Your task to perform on an android device: toggle wifi Image 0: 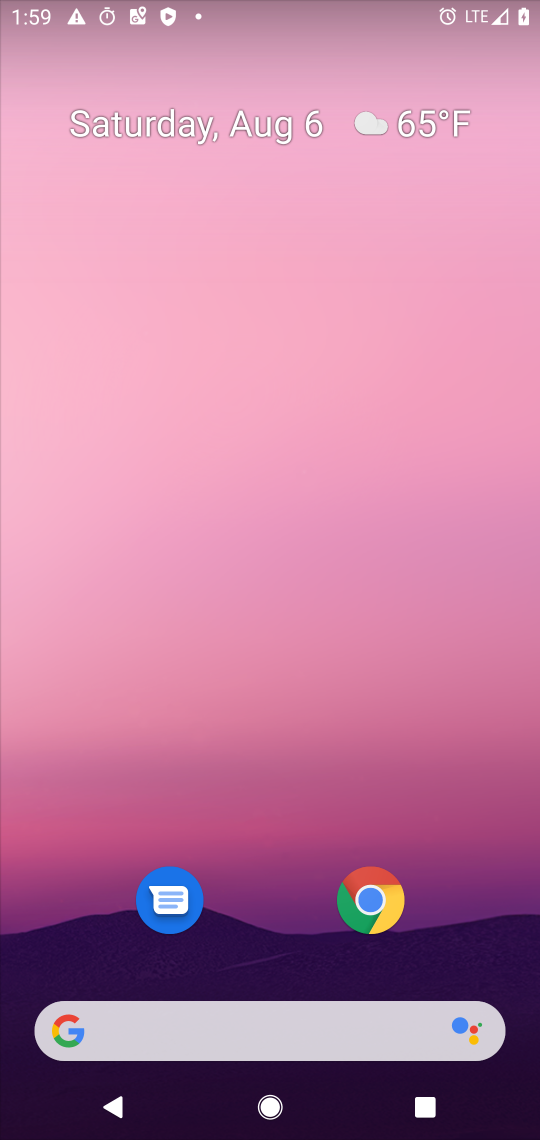
Step 0: drag from (290, 982) to (246, 268)
Your task to perform on an android device: toggle wifi Image 1: 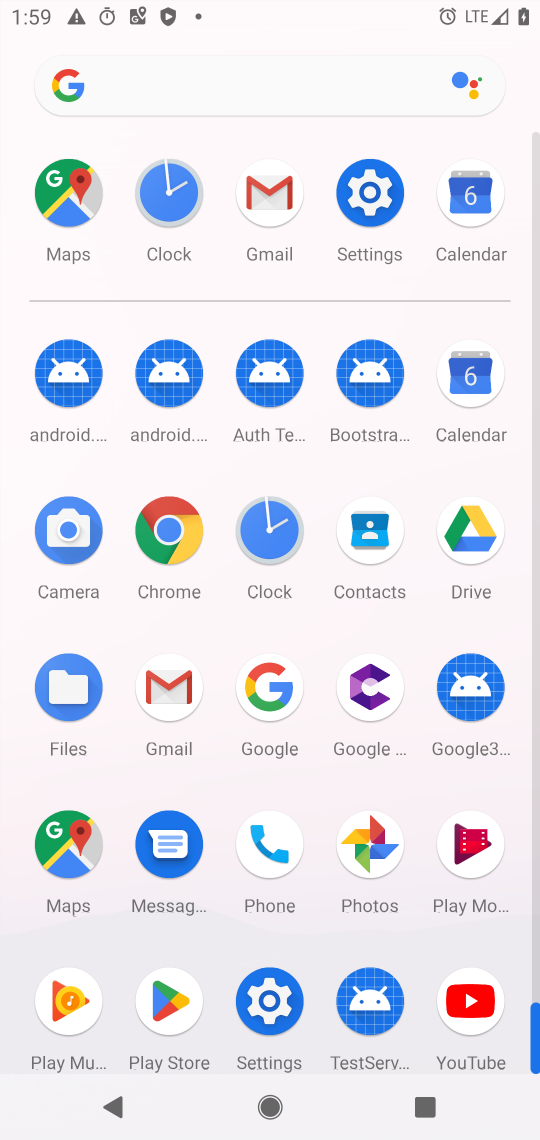
Step 1: click (366, 198)
Your task to perform on an android device: toggle wifi Image 2: 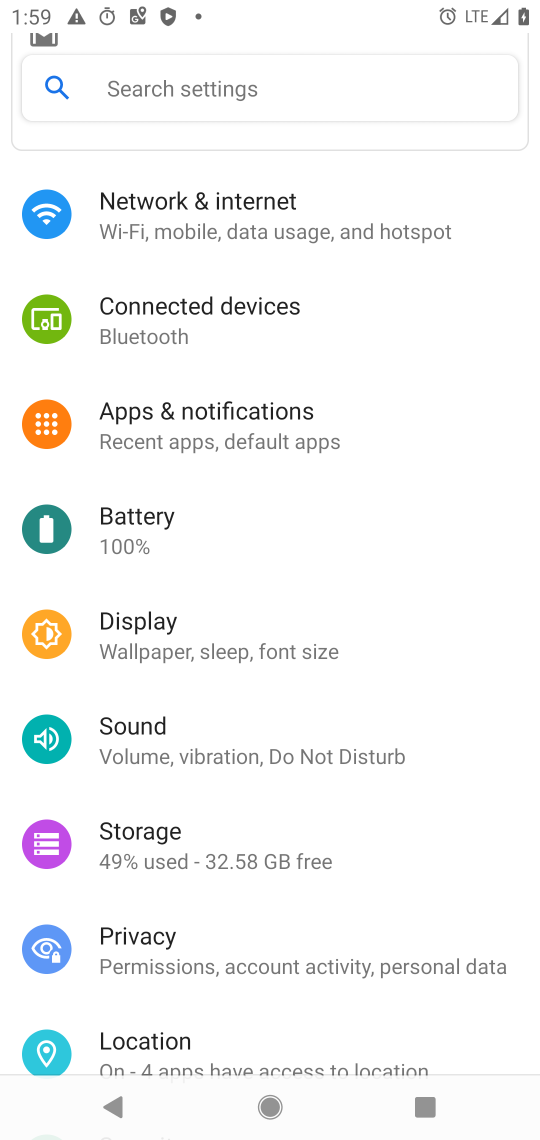
Step 2: click (273, 208)
Your task to perform on an android device: toggle wifi Image 3: 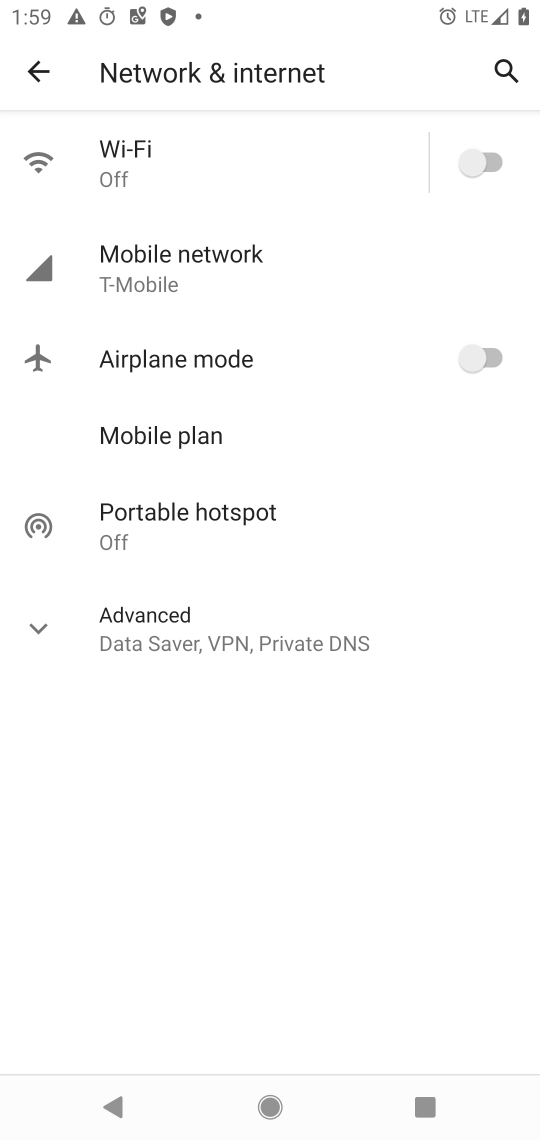
Step 3: click (484, 158)
Your task to perform on an android device: toggle wifi Image 4: 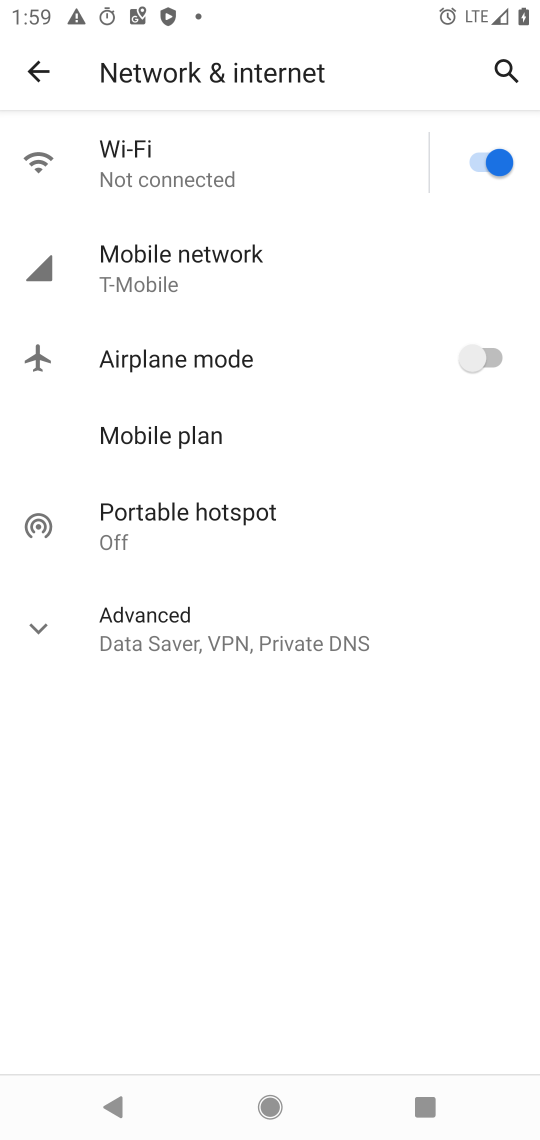
Step 4: task complete